Your task to perform on an android device: open device folders in google photos Image 0: 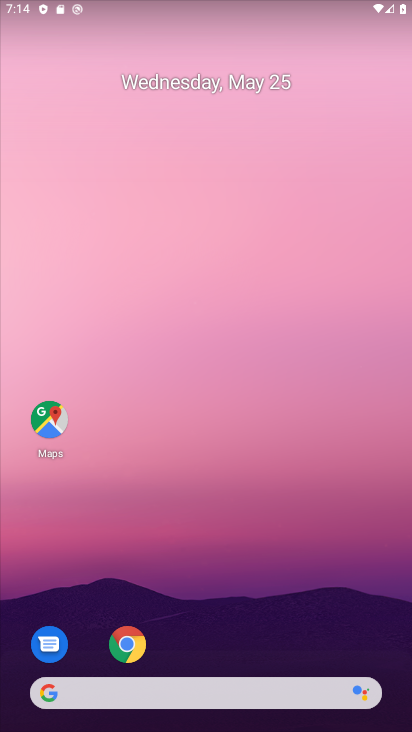
Step 0: drag from (217, 697) to (205, 368)
Your task to perform on an android device: open device folders in google photos Image 1: 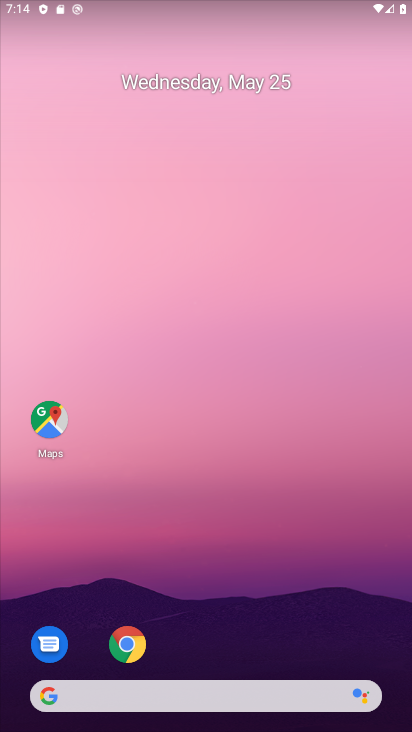
Step 1: drag from (231, 698) to (228, 386)
Your task to perform on an android device: open device folders in google photos Image 2: 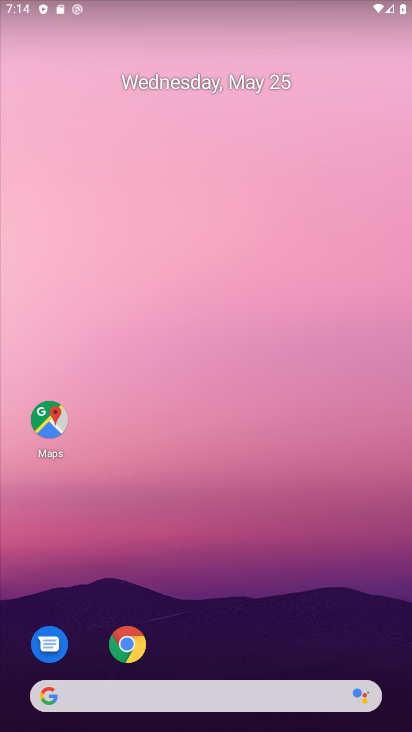
Step 2: drag from (202, 697) to (195, 216)
Your task to perform on an android device: open device folders in google photos Image 3: 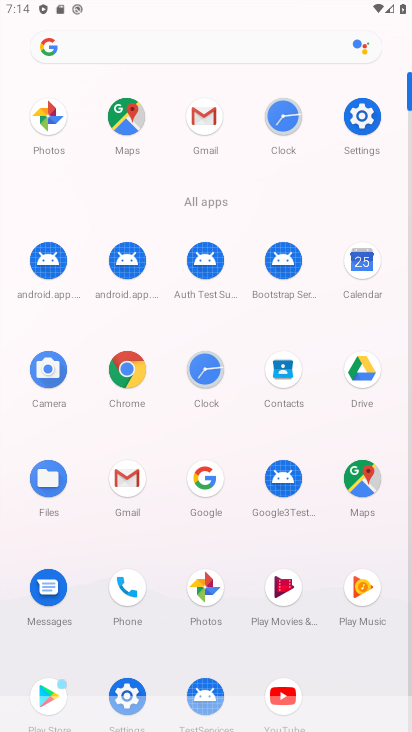
Step 3: click (206, 591)
Your task to perform on an android device: open device folders in google photos Image 4: 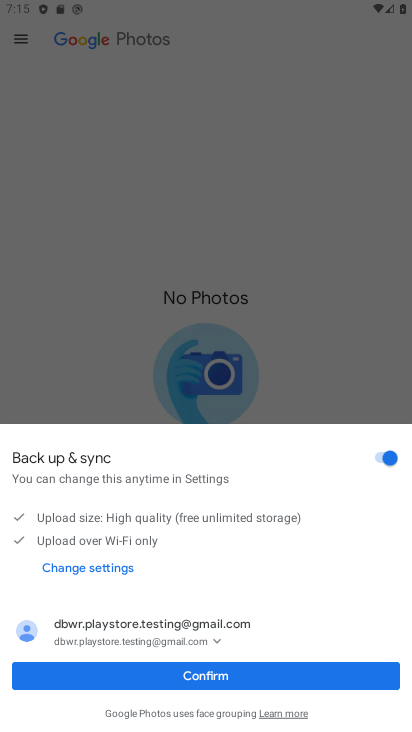
Step 4: click (210, 671)
Your task to perform on an android device: open device folders in google photos Image 5: 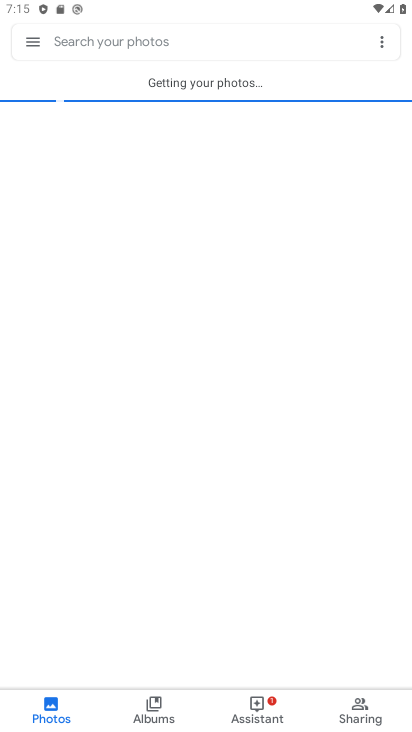
Step 5: click (165, 714)
Your task to perform on an android device: open device folders in google photos Image 6: 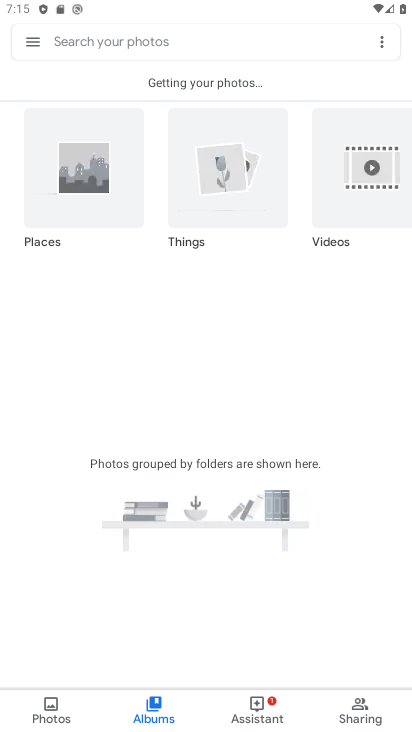
Step 6: task complete